Your task to perform on an android device: visit the assistant section in the google photos Image 0: 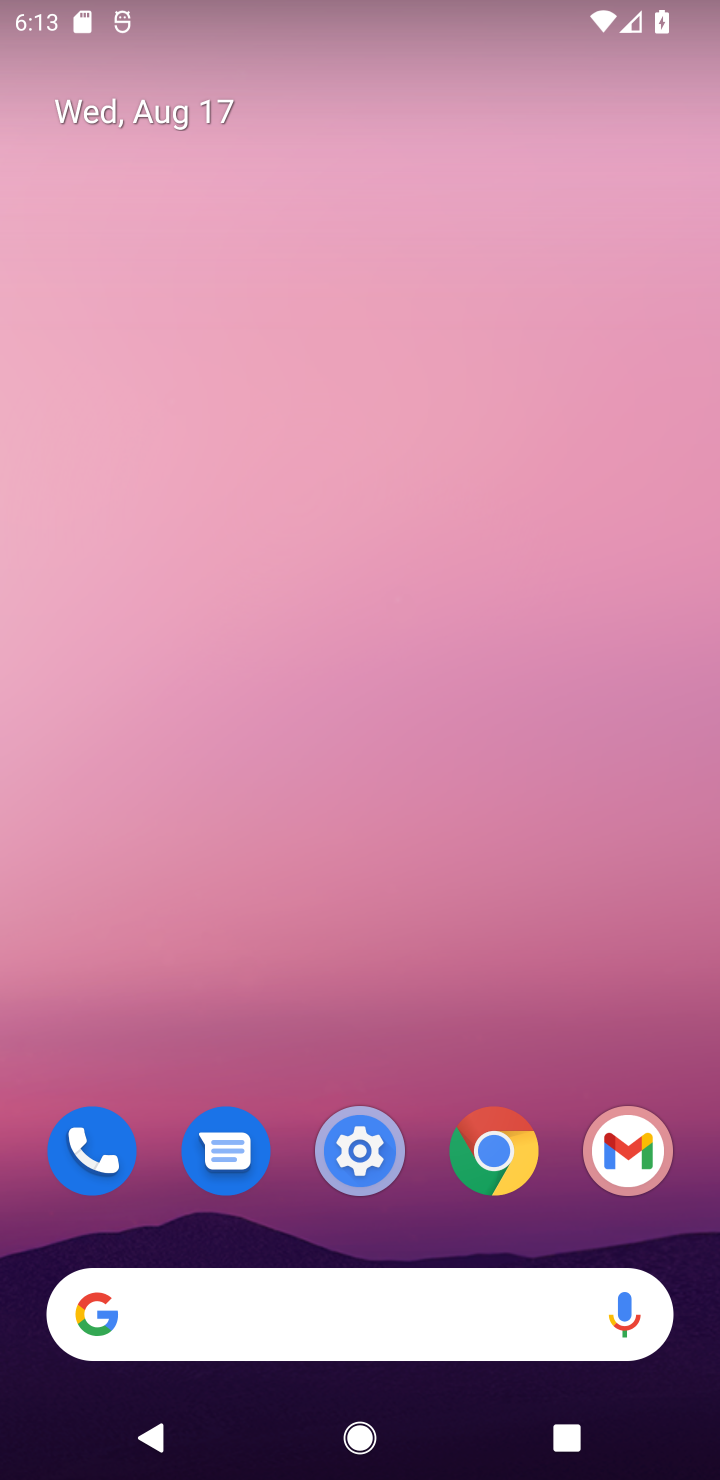
Step 0: drag from (412, 1245) to (491, 14)
Your task to perform on an android device: visit the assistant section in the google photos Image 1: 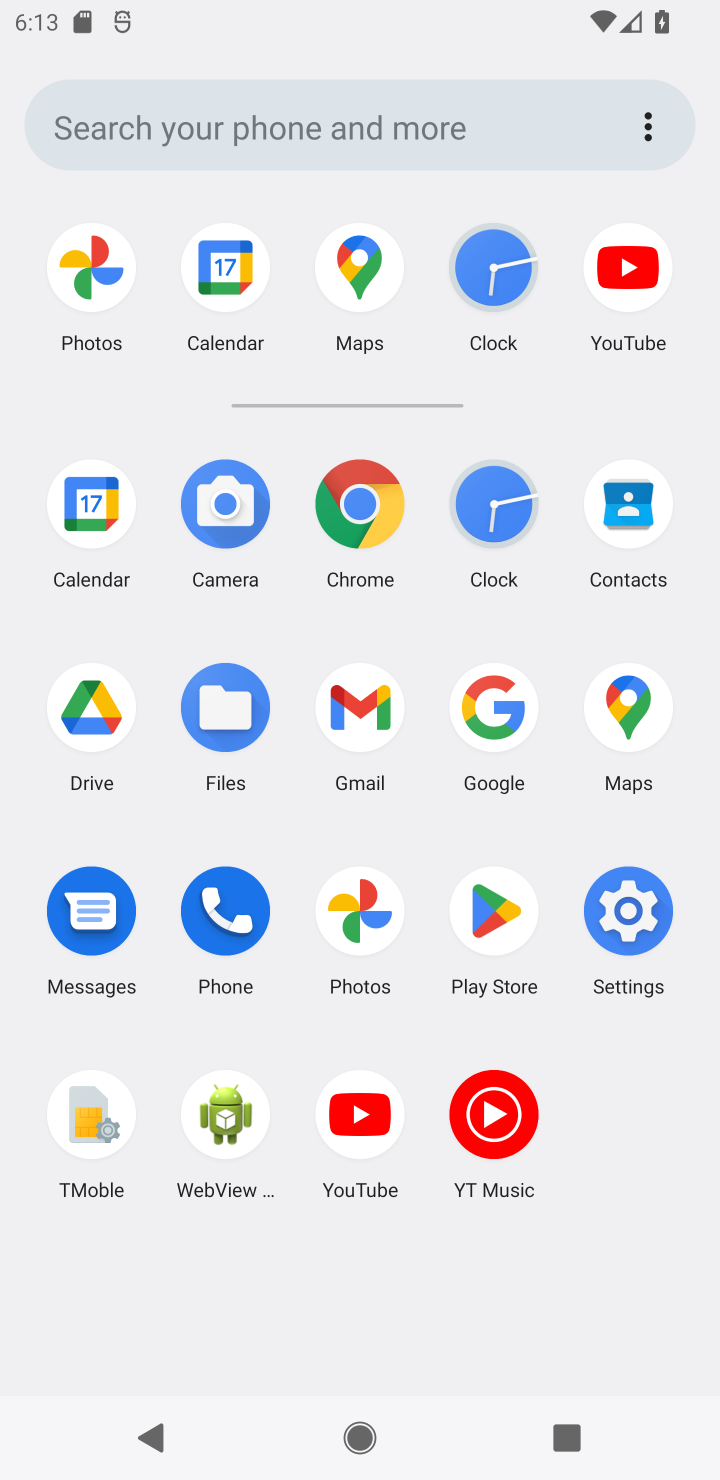
Step 1: click (115, 313)
Your task to perform on an android device: visit the assistant section in the google photos Image 2: 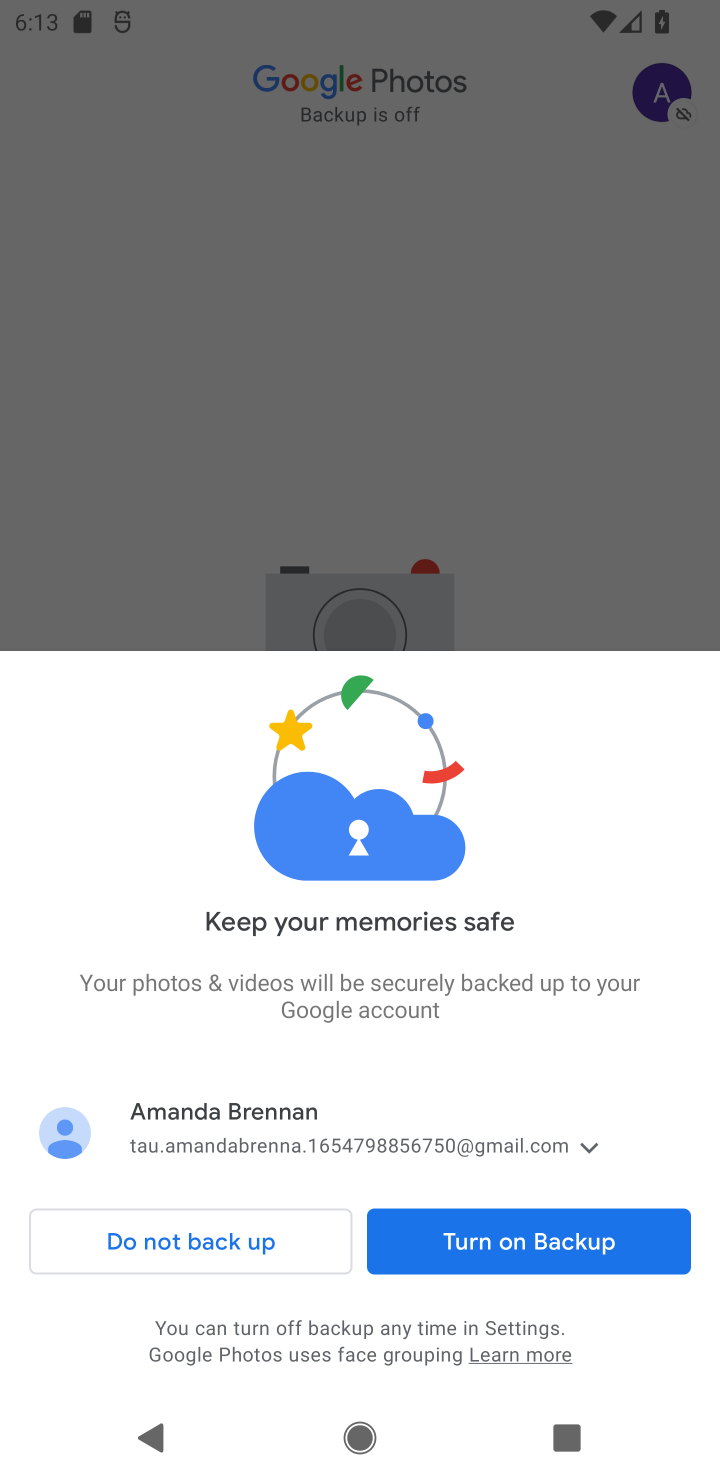
Step 2: task complete